Your task to perform on an android device: check storage Image 0: 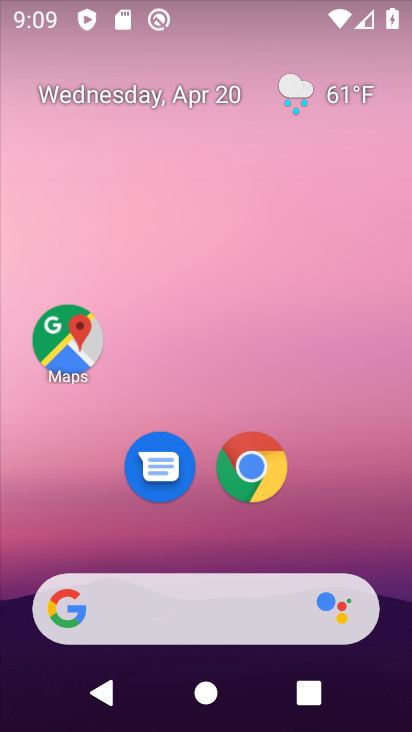
Step 0: click (288, 100)
Your task to perform on an android device: check storage Image 1: 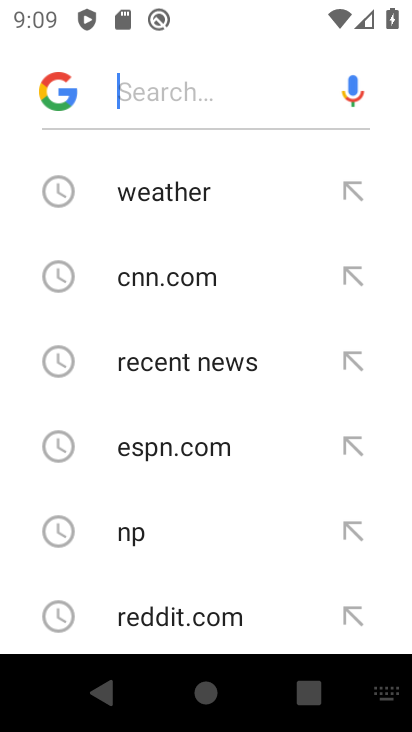
Step 1: press home button
Your task to perform on an android device: check storage Image 2: 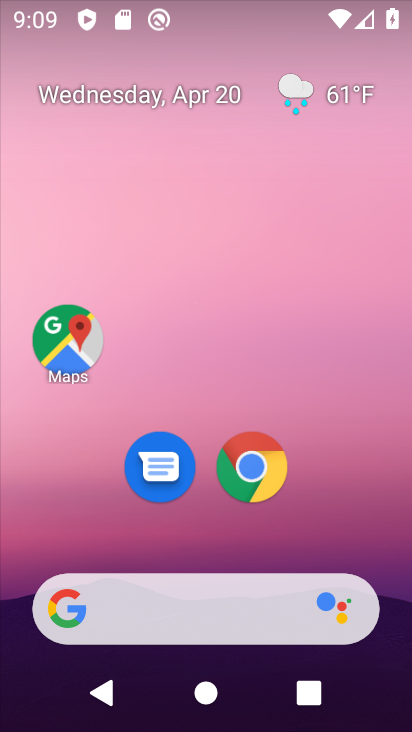
Step 2: drag from (329, 337) to (337, 82)
Your task to perform on an android device: check storage Image 3: 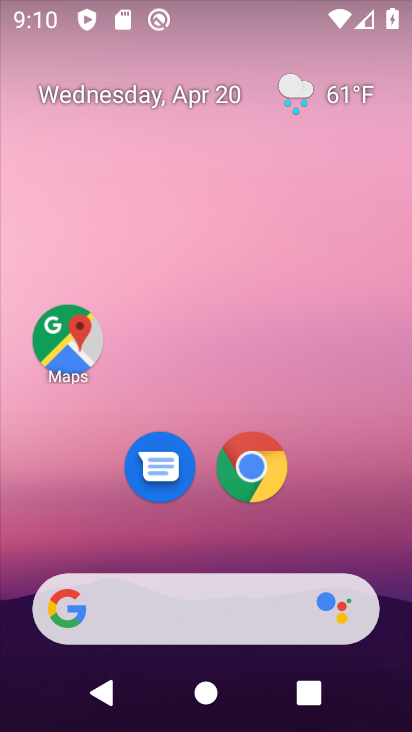
Step 3: drag from (334, 368) to (166, 17)
Your task to perform on an android device: check storage Image 4: 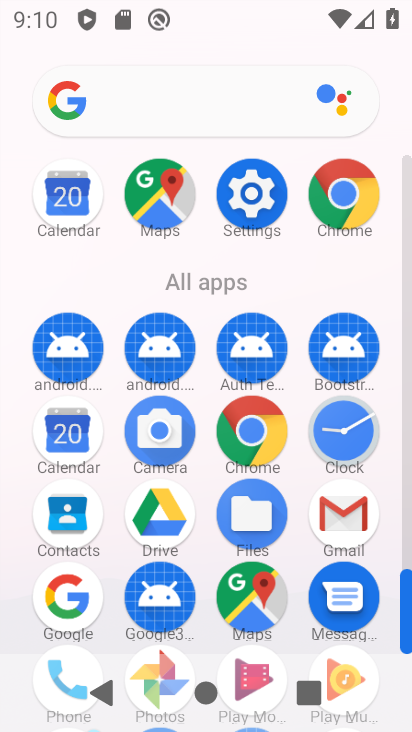
Step 4: click (233, 198)
Your task to perform on an android device: check storage Image 5: 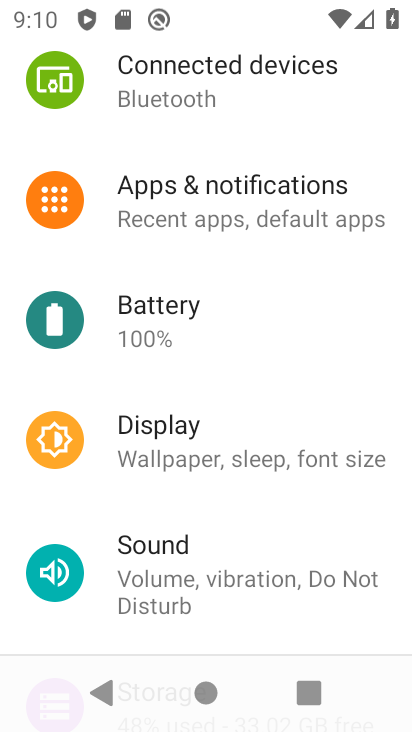
Step 5: drag from (214, 535) to (228, 43)
Your task to perform on an android device: check storage Image 6: 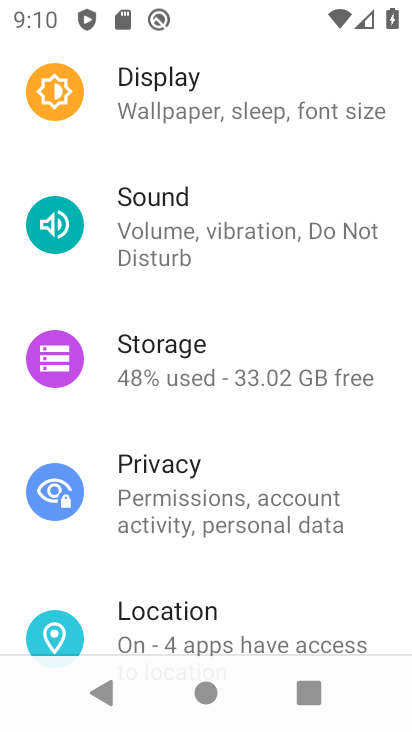
Step 6: click (155, 339)
Your task to perform on an android device: check storage Image 7: 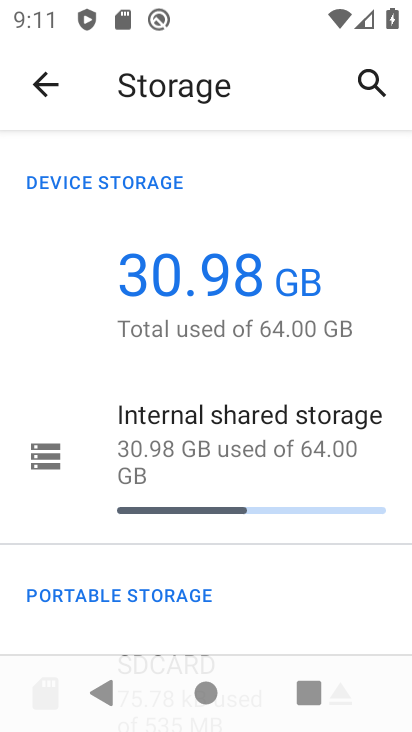
Step 7: task complete